Your task to perform on an android device: set an alarm Image 0: 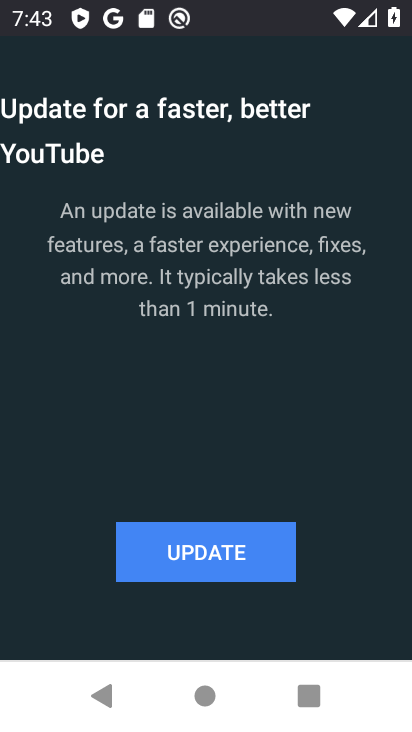
Step 0: press home button
Your task to perform on an android device: set an alarm Image 1: 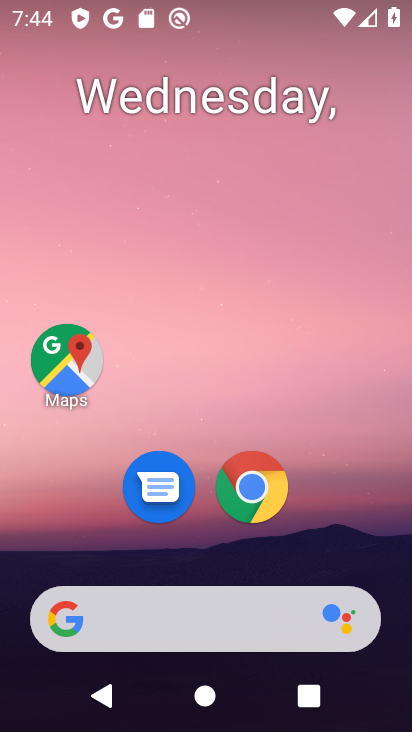
Step 1: drag from (261, 599) to (293, 131)
Your task to perform on an android device: set an alarm Image 2: 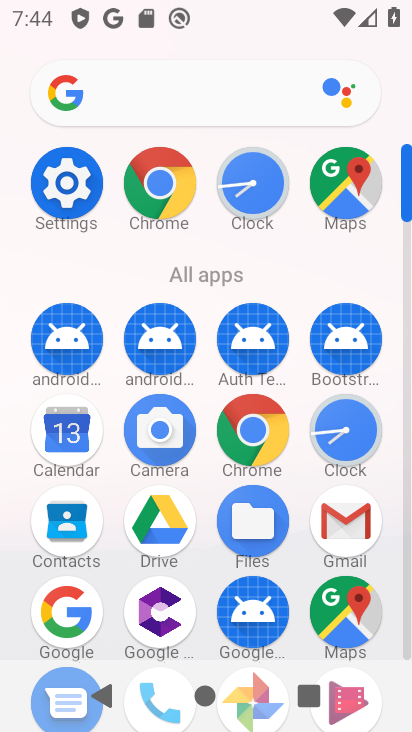
Step 2: click (249, 203)
Your task to perform on an android device: set an alarm Image 3: 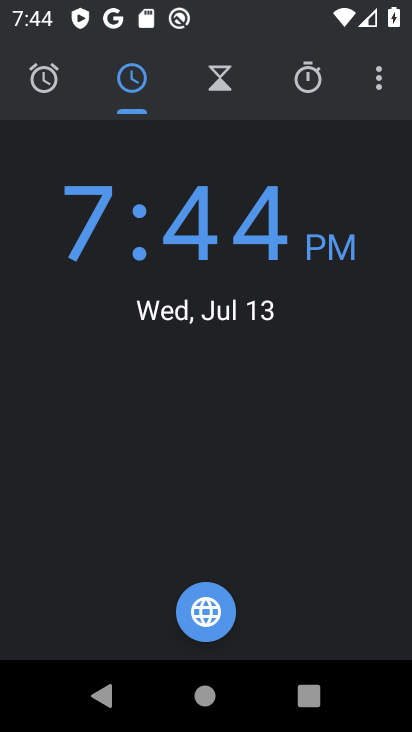
Step 3: click (54, 97)
Your task to perform on an android device: set an alarm Image 4: 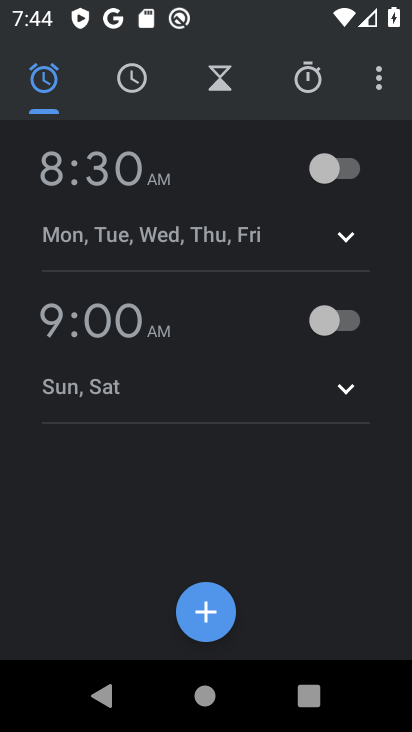
Step 4: click (197, 621)
Your task to perform on an android device: set an alarm Image 5: 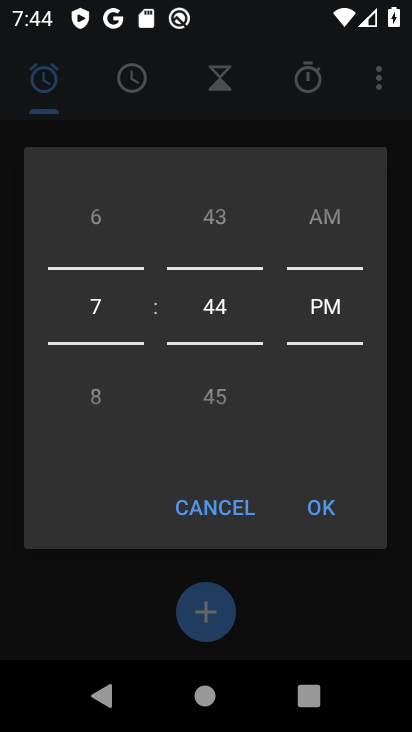
Step 5: click (326, 516)
Your task to perform on an android device: set an alarm Image 6: 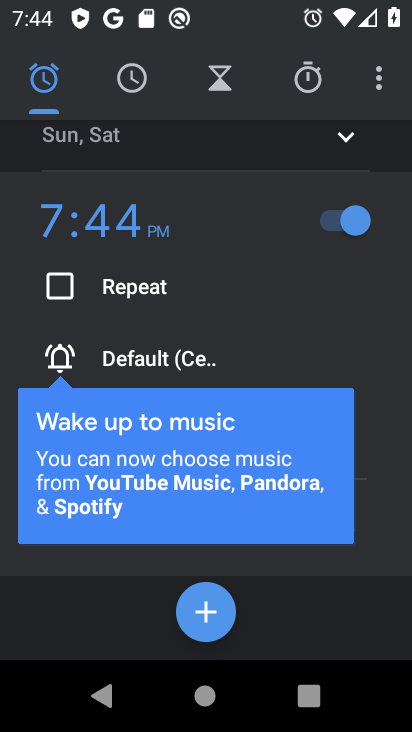
Step 6: click (197, 600)
Your task to perform on an android device: set an alarm Image 7: 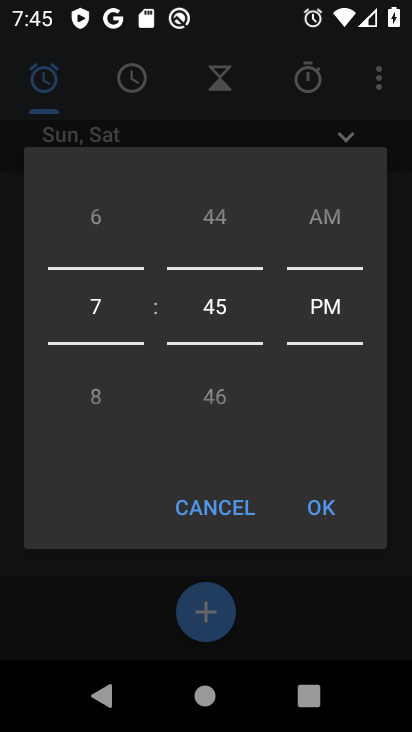
Step 7: click (322, 526)
Your task to perform on an android device: set an alarm Image 8: 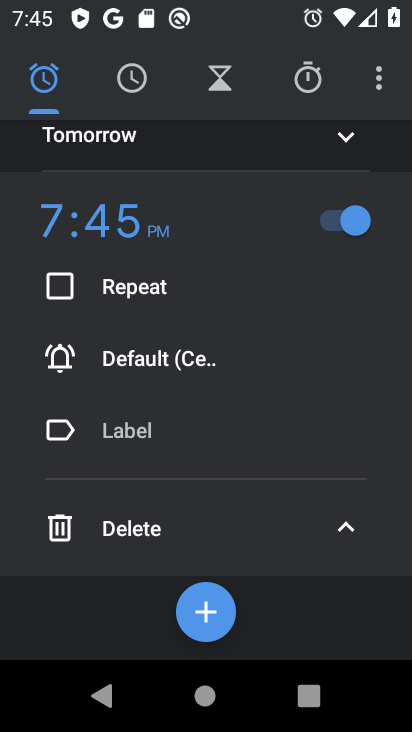
Step 8: task complete